Your task to perform on an android device: change the clock display to digital Image 0: 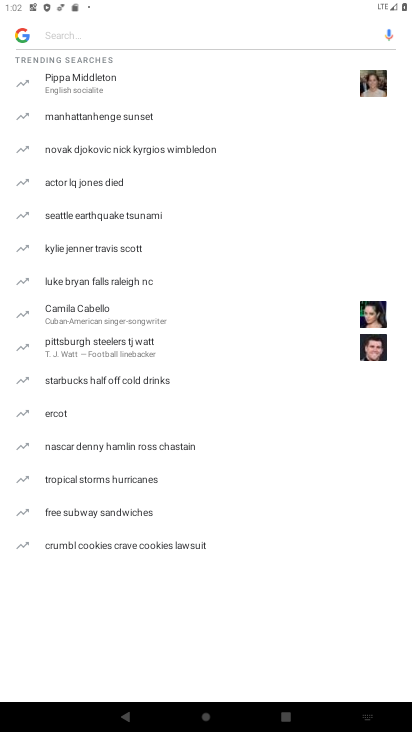
Step 0: press home button
Your task to perform on an android device: change the clock display to digital Image 1: 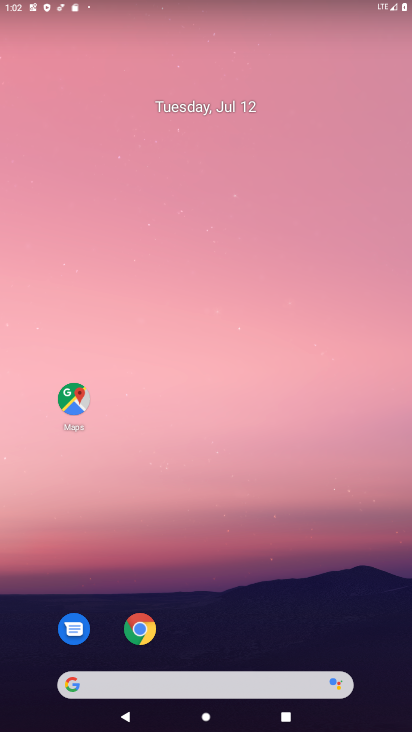
Step 1: drag from (210, 660) to (272, 163)
Your task to perform on an android device: change the clock display to digital Image 2: 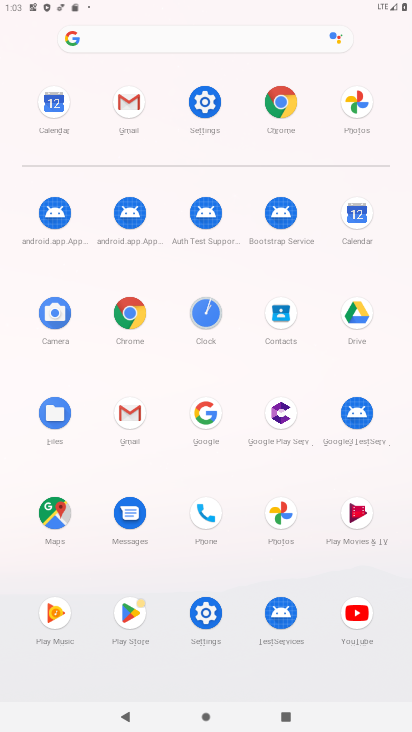
Step 2: click (211, 314)
Your task to perform on an android device: change the clock display to digital Image 3: 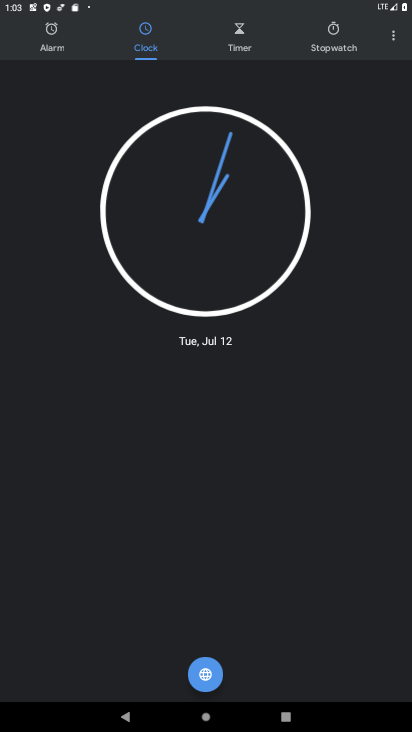
Step 3: click (393, 41)
Your task to perform on an android device: change the clock display to digital Image 4: 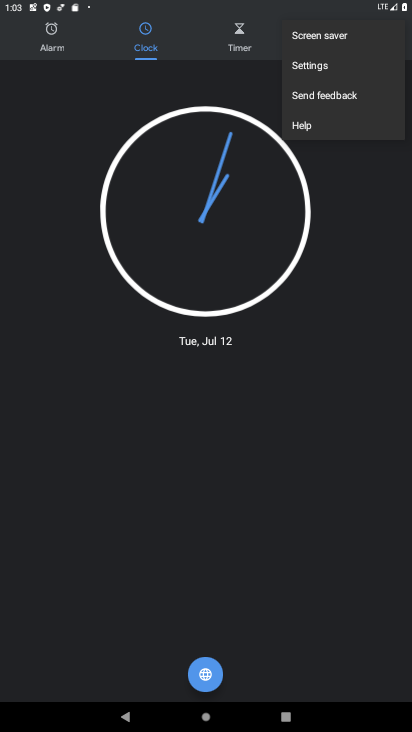
Step 4: click (329, 69)
Your task to perform on an android device: change the clock display to digital Image 5: 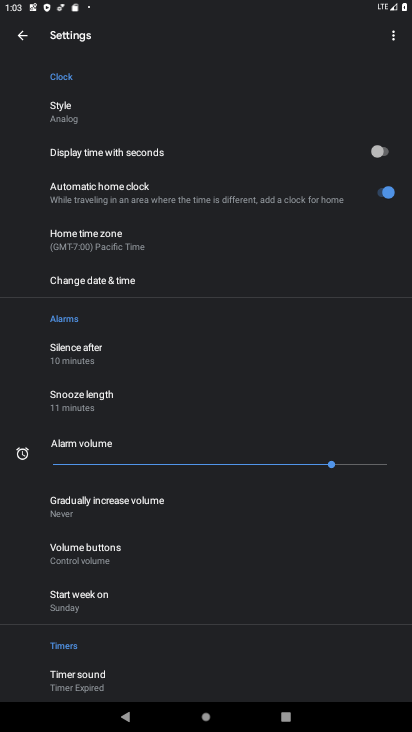
Step 5: click (91, 120)
Your task to perform on an android device: change the clock display to digital Image 6: 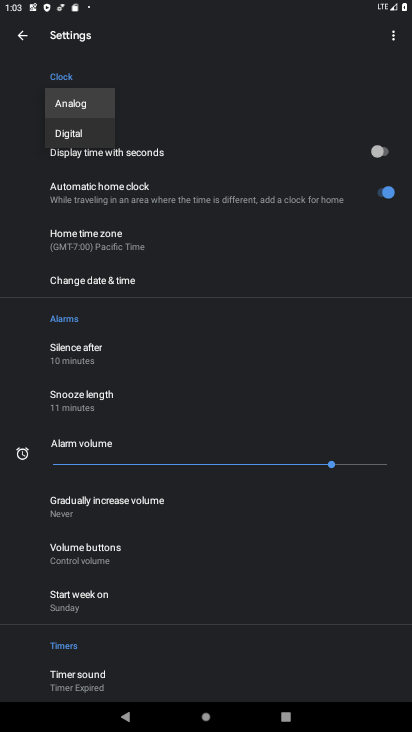
Step 6: click (76, 139)
Your task to perform on an android device: change the clock display to digital Image 7: 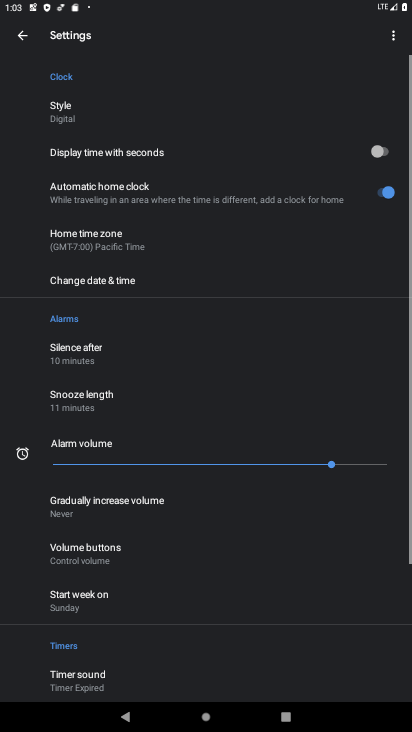
Step 7: task complete